Your task to perform on an android device: Go to Maps Image 0: 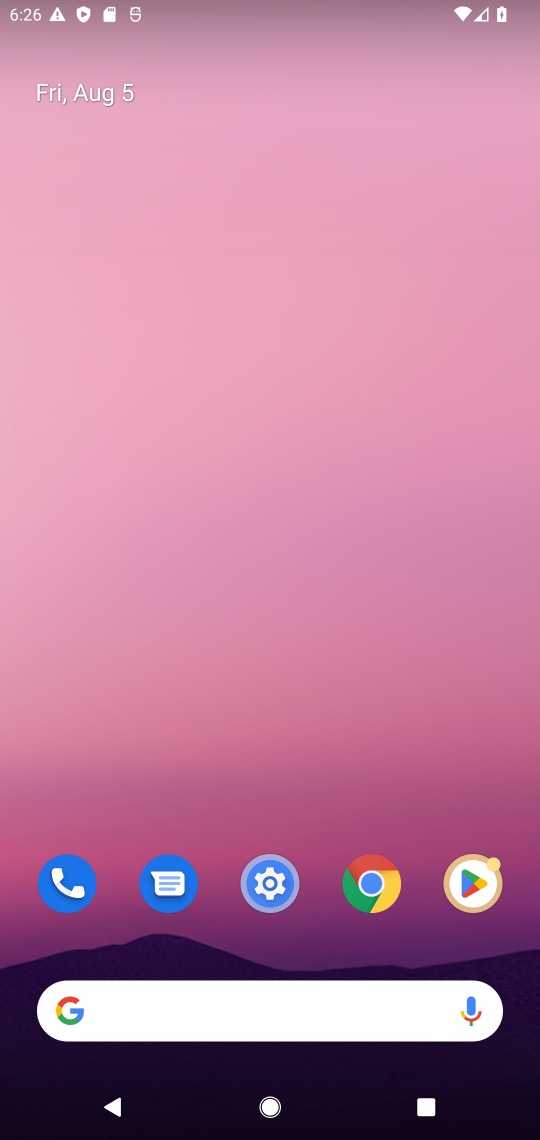
Step 0: drag from (364, 771) to (400, 234)
Your task to perform on an android device: Go to Maps Image 1: 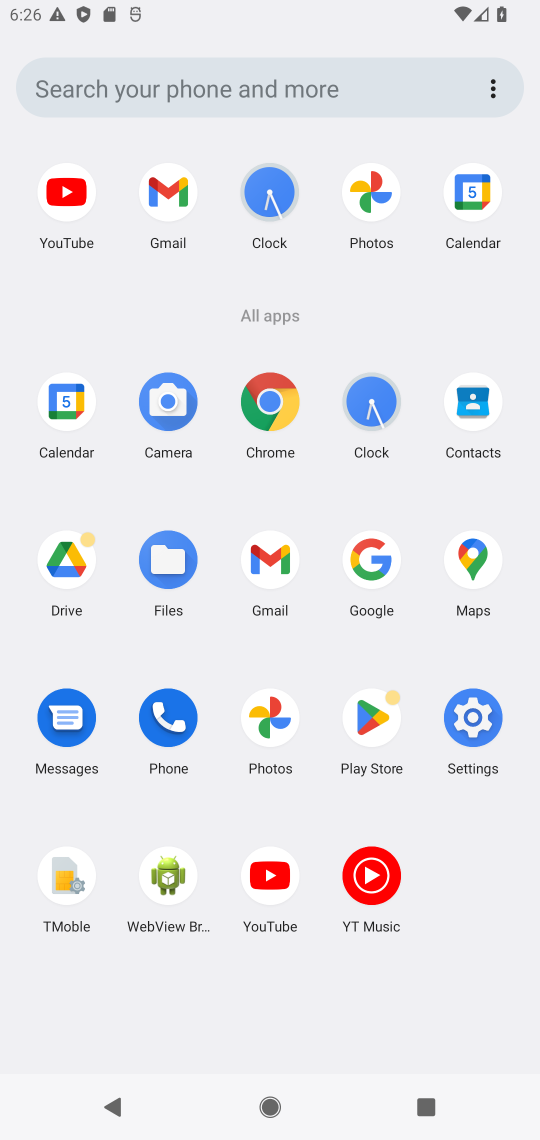
Step 1: click (466, 573)
Your task to perform on an android device: Go to Maps Image 2: 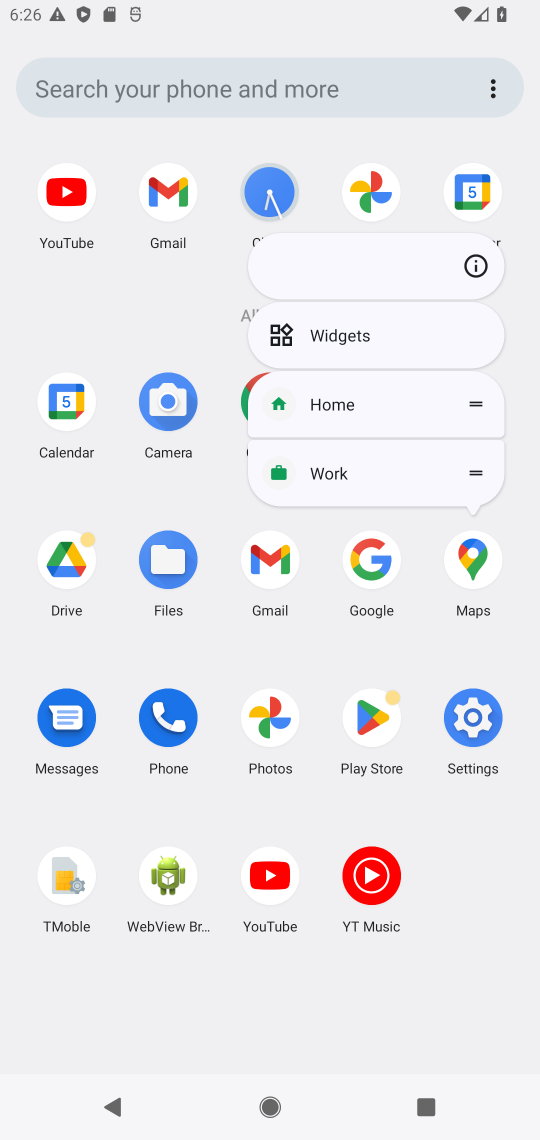
Step 2: click (483, 579)
Your task to perform on an android device: Go to Maps Image 3: 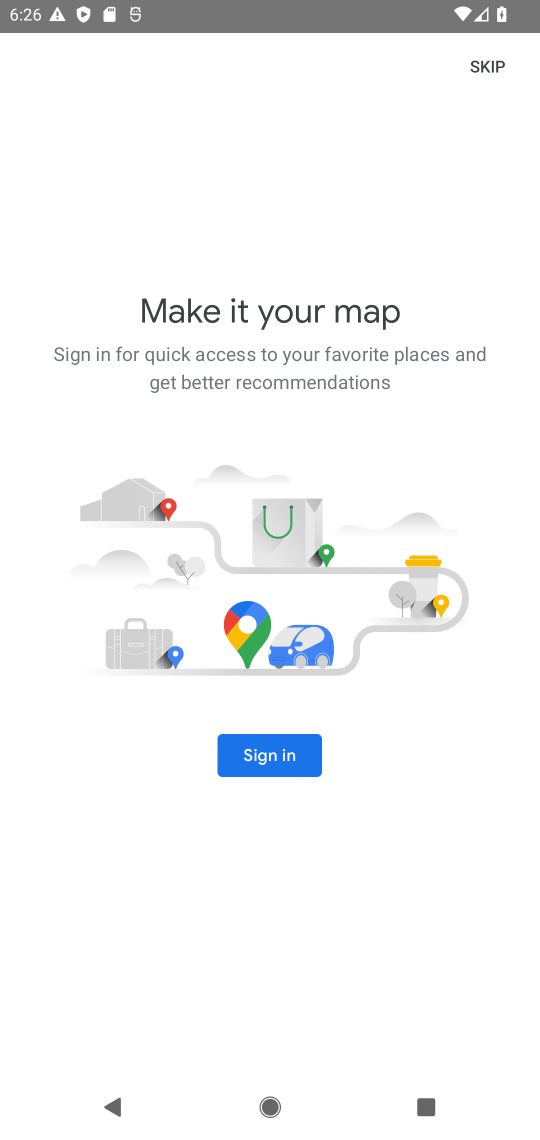
Step 3: click (295, 764)
Your task to perform on an android device: Go to Maps Image 4: 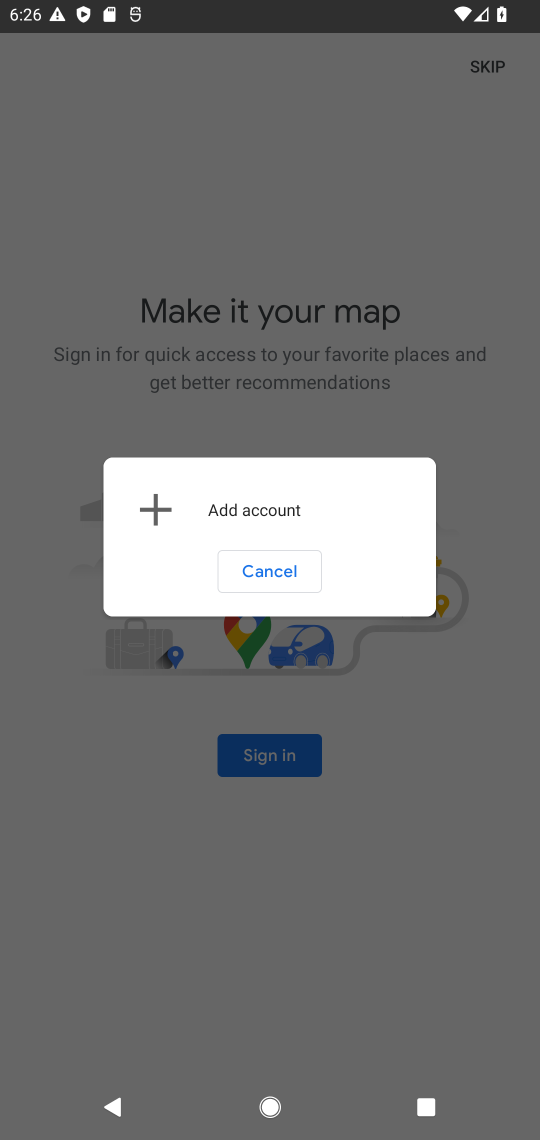
Step 4: task complete